Your task to perform on an android device: When is my next meeting? Image 0: 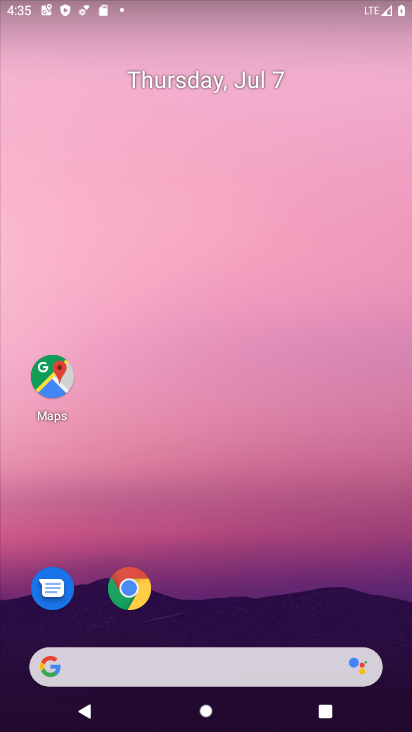
Step 0: drag from (306, 639) to (282, 33)
Your task to perform on an android device: When is my next meeting? Image 1: 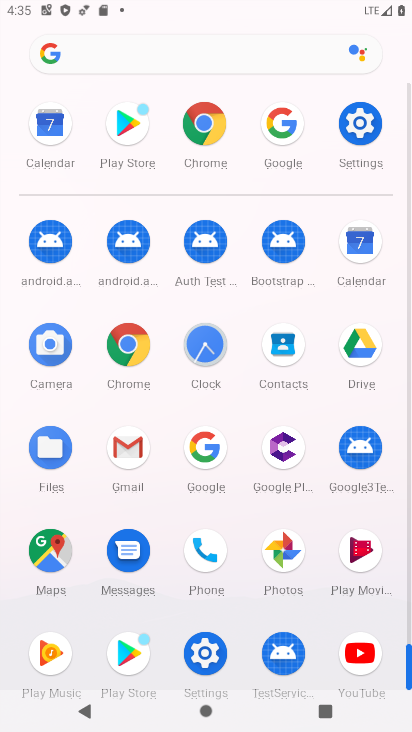
Step 1: click (373, 246)
Your task to perform on an android device: When is my next meeting? Image 2: 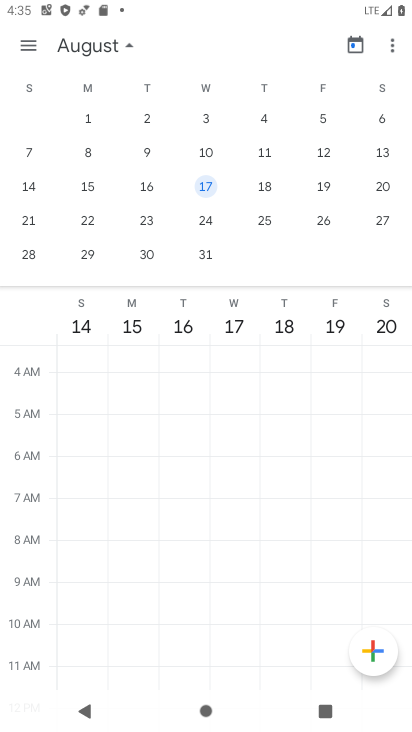
Step 2: drag from (119, 201) to (389, 167)
Your task to perform on an android device: When is my next meeting? Image 3: 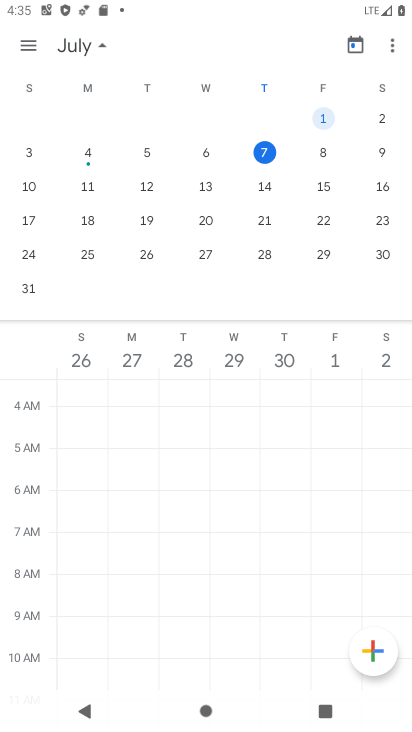
Step 3: click (319, 155)
Your task to perform on an android device: When is my next meeting? Image 4: 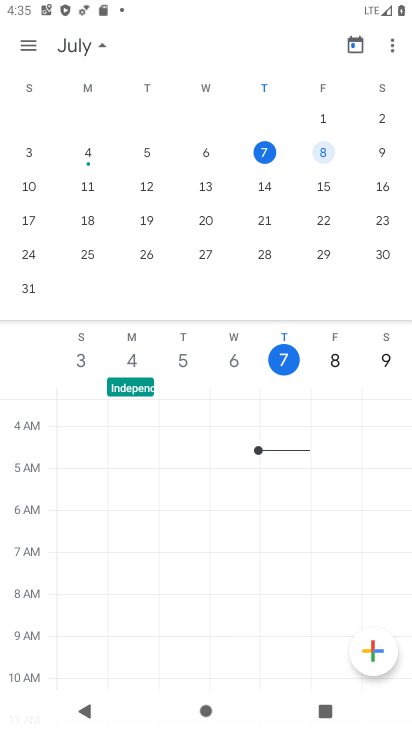
Step 4: task complete